Your task to perform on an android device: manage bookmarks in the chrome app Image 0: 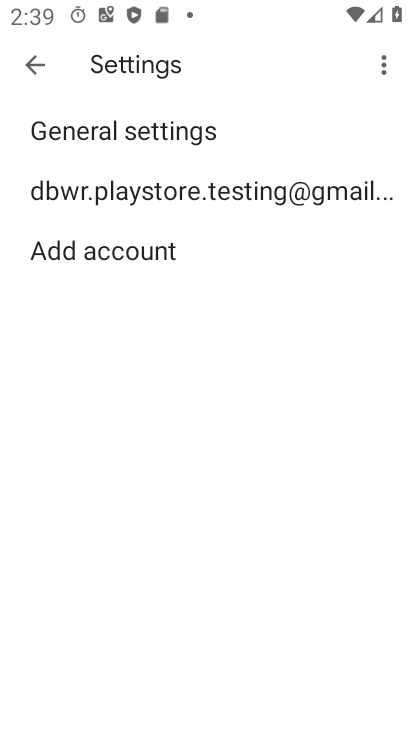
Step 0: press back button
Your task to perform on an android device: manage bookmarks in the chrome app Image 1: 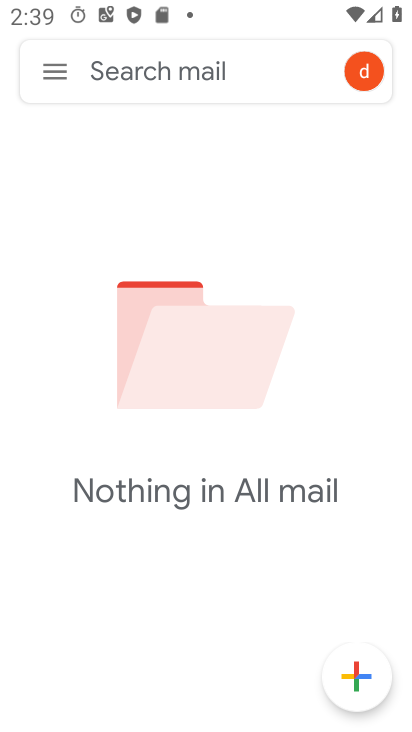
Step 1: press home button
Your task to perform on an android device: manage bookmarks in the chrome app Image 2: 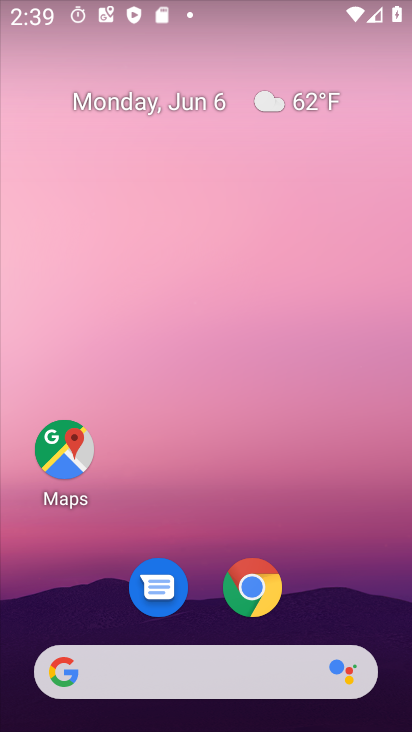
Step 2: drag from (364, 564) to (217, 32)
Your task to perform on an android device: manage bookmarks in the chrome app Image 3: 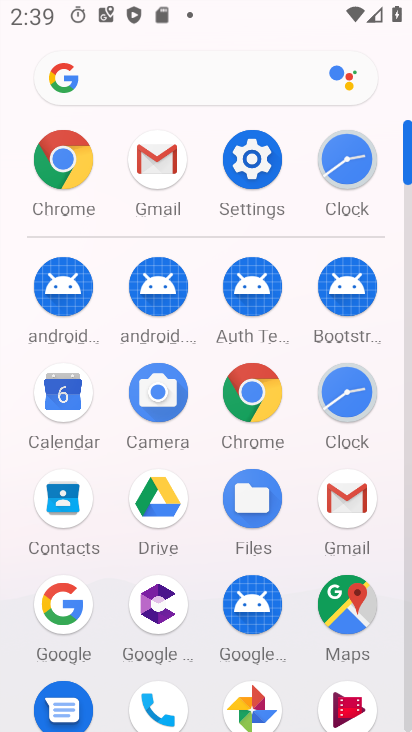
Step 3: drag from (17, 567) to (1, 208)
Your task to perform on an android device: manage bookmarks in the chrome app Image 4: 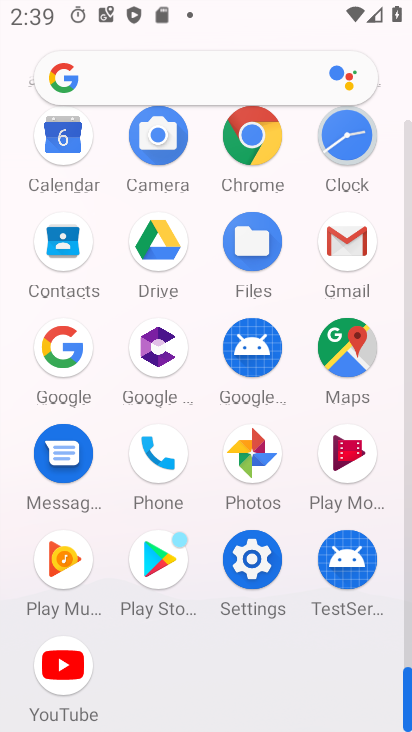
Step 4: click (253, 134)
Your task to perform on an android device: manage bookmarks in the chrome app Image 5: 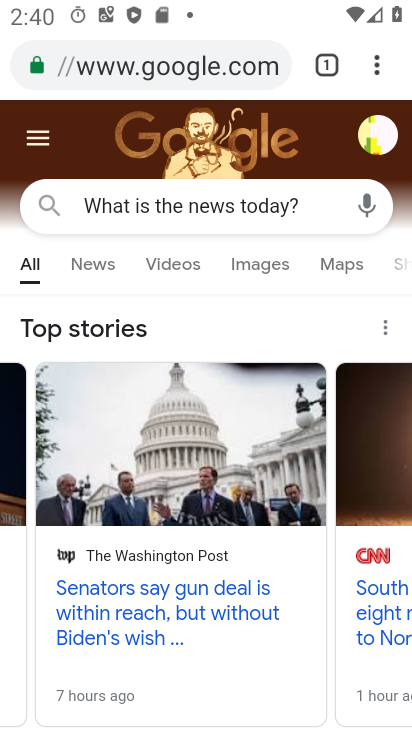
Step 5: task complete